Your task to perform on an android device: Toggle the flashlight Image 0: 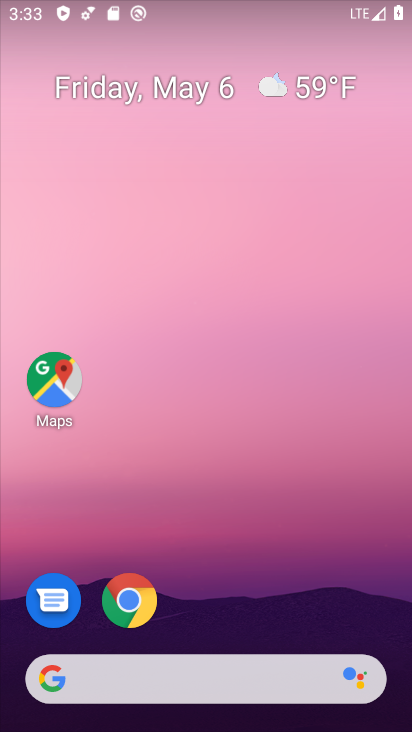
Step 0: drag from (236, 603) to (278, 121)
Your task to perform on an android device: Toggle the flashlight Image 1: 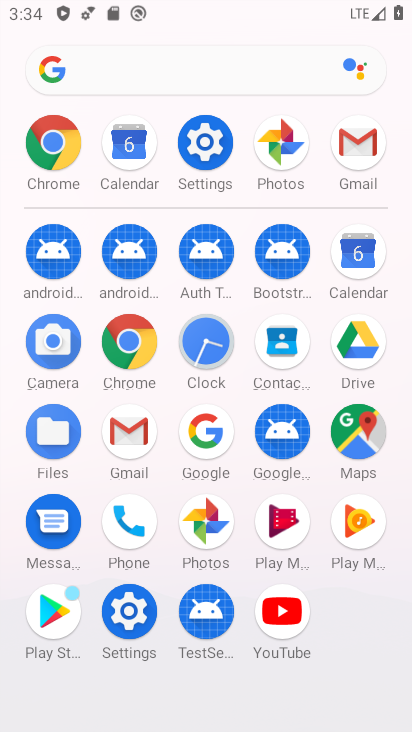
Step 1: click (206, 153)
Your task to perform on an android device: Toggle the flashlight Image 2: 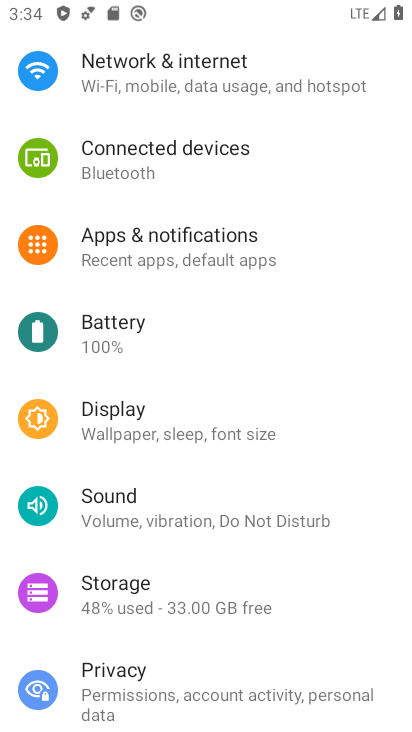
Step 2: drag from (224, 88) to (224, 508)
Your task to perform on an android device: Toggle the flashlight Image 3: 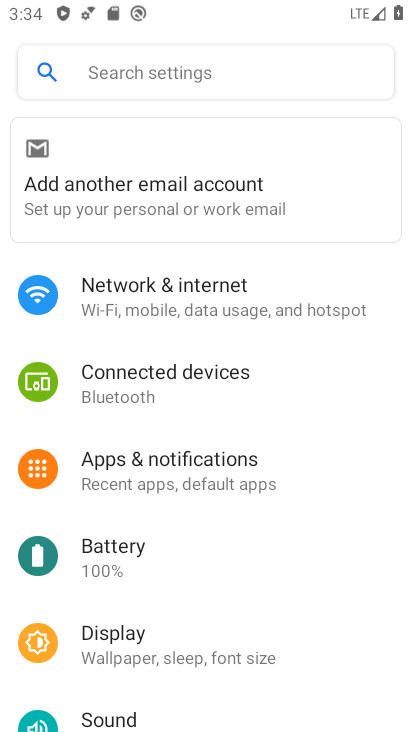
Step 3: click (222, 84)
Your task to perform on an android device: Toggle the flashlight Image 4: 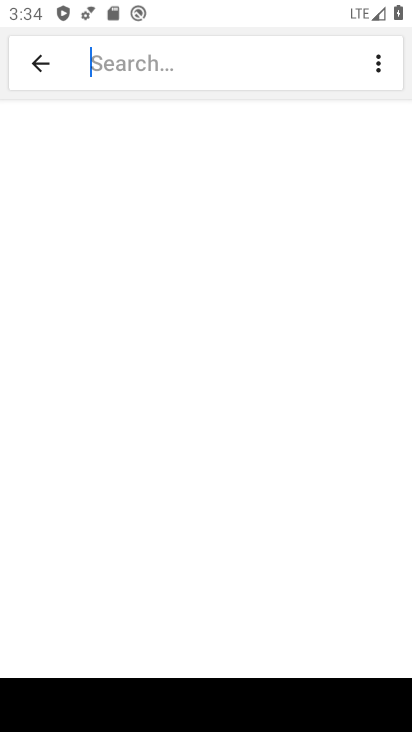
Step 4: type "flashlight"
Your task to perform on an android device: Toggle the flashlight Image 5: 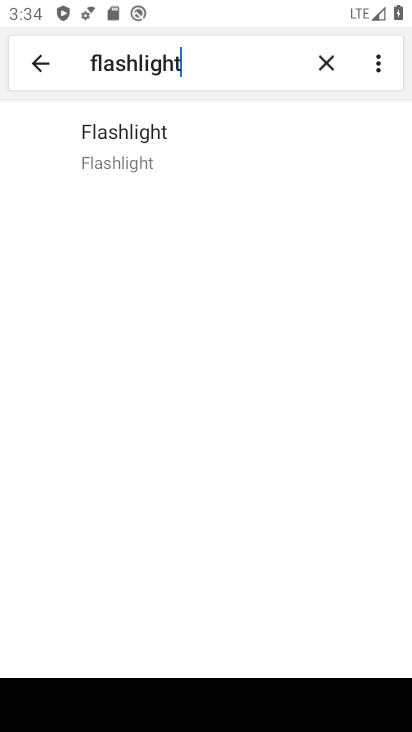
Step 5: click (170, 129)
Your task to perform on an android device: Toggle the flashlight Image 6: 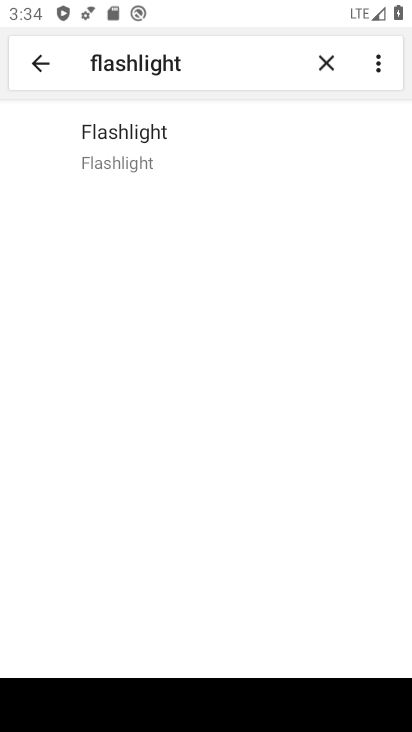
Step 6: click (166, 138)
Your task to perform on an android device: Toggle the flashlight Image 7: 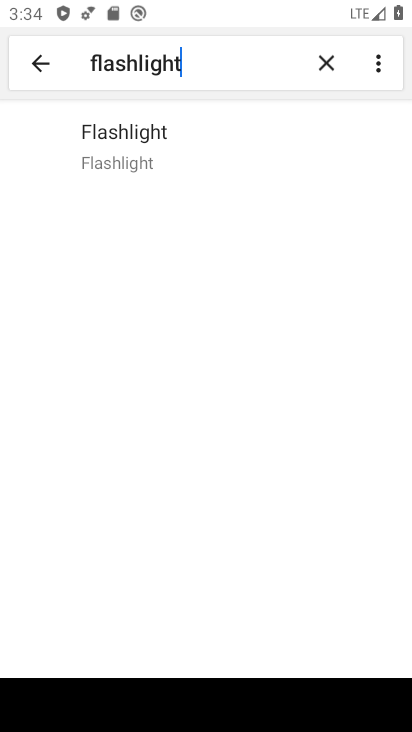
Step 7: task complete